Your task to perform on an android device: Show me popular games on the Play Store Image 0: 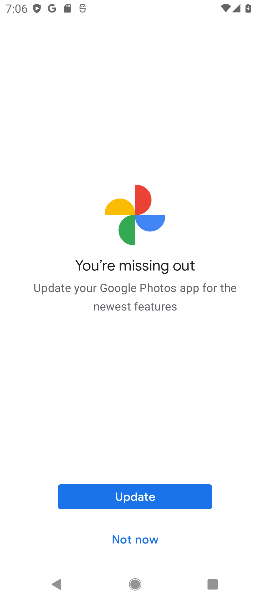
Step 0: press home button
Your task to perform on an android device: Show me popular games on the Play Store Image 1: 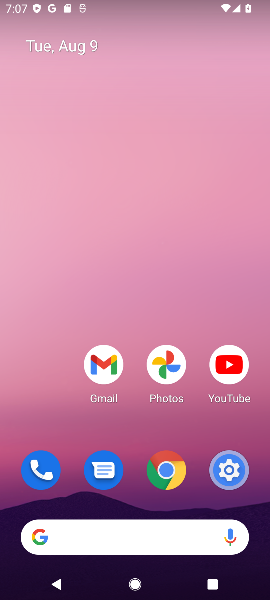
Step 1: drag from (89, 594) to (210, 95)
Your task to perform on an android device: Show me popular games on the Play Store Image 2: 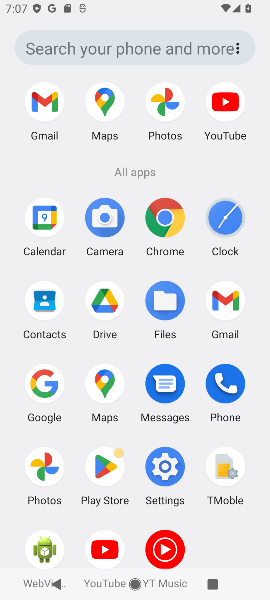
Step 2: click (116, 463)
Your task to perform on an android device: Show me popular games on the Play Store Image 3: 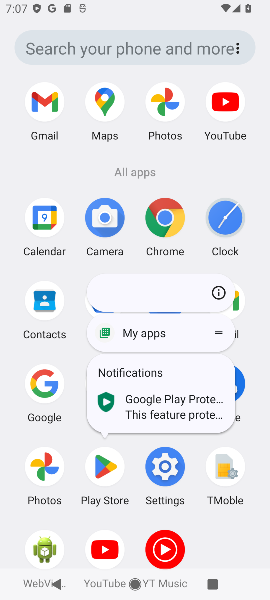
Step 3: click (116, 463)
Your task to perform on an android device: Show me popular games on the Play Store Image 4: 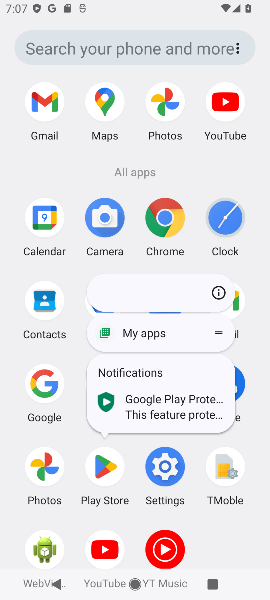
Step 4: click (116, 463)
Your task to perform on an android device: Show me popular games on the Play Store Image 5: 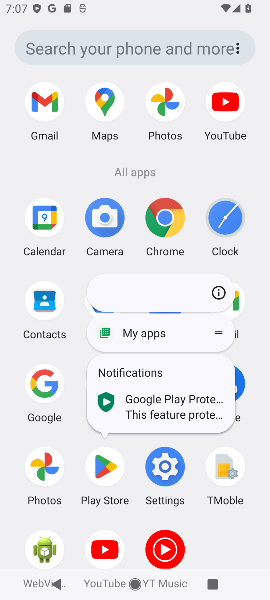
Step 5: click (93, 465)
Your task to perform on an android device: Show me popular games on the Play Store Image 6: 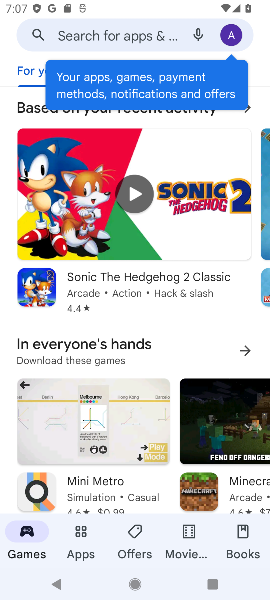
Step 6: task complete